Your task to perform on an android device: install app "Indeed Job Search" Image 0: 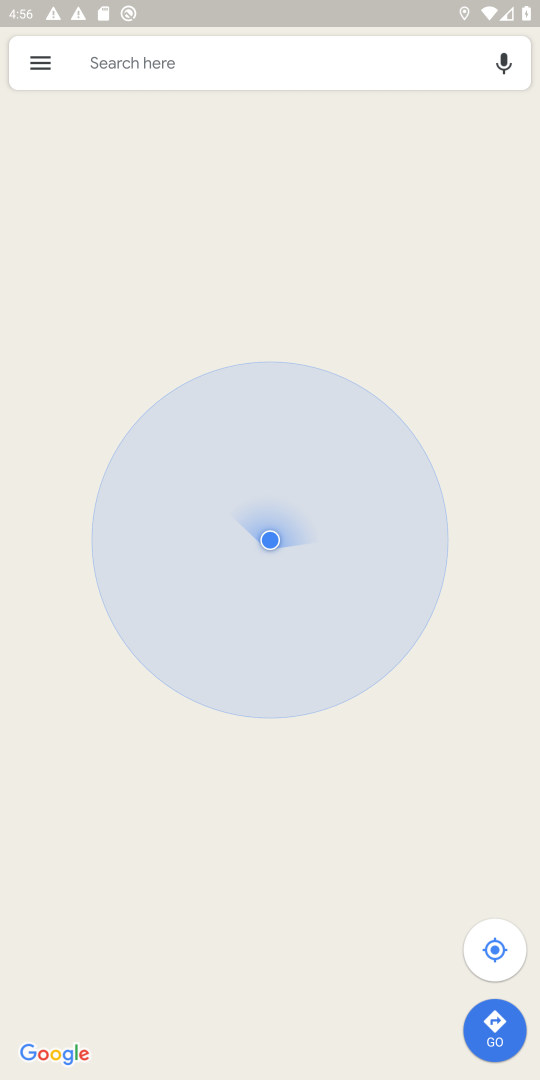
Step 0: press back button
Your task to perform on an android device: install app "Indeed Job Search" Image 1: 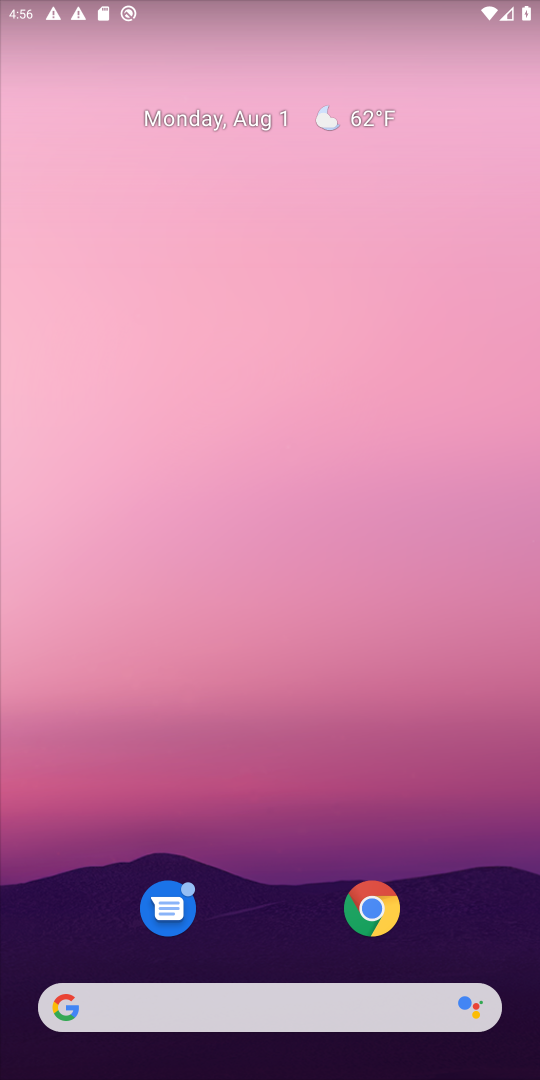
Step 1: click (218, 247)
Your task to perform on an android device: install app "Indeed Job Search" Image 2: 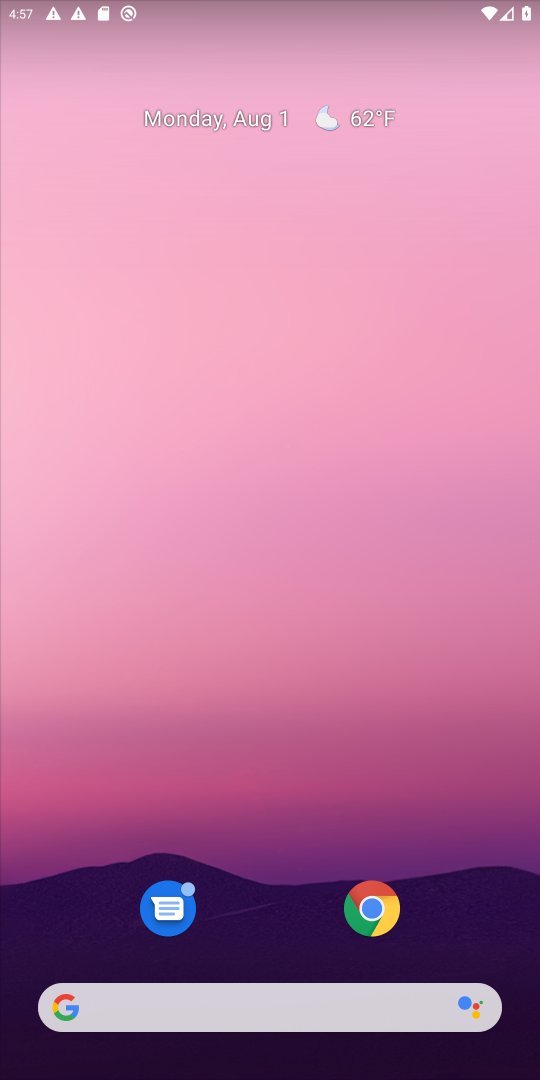
Step 2: drag from (247, 950) to (241, 239)
Your task to perform on an android device: install app "Indeed Job Search" Image 3: 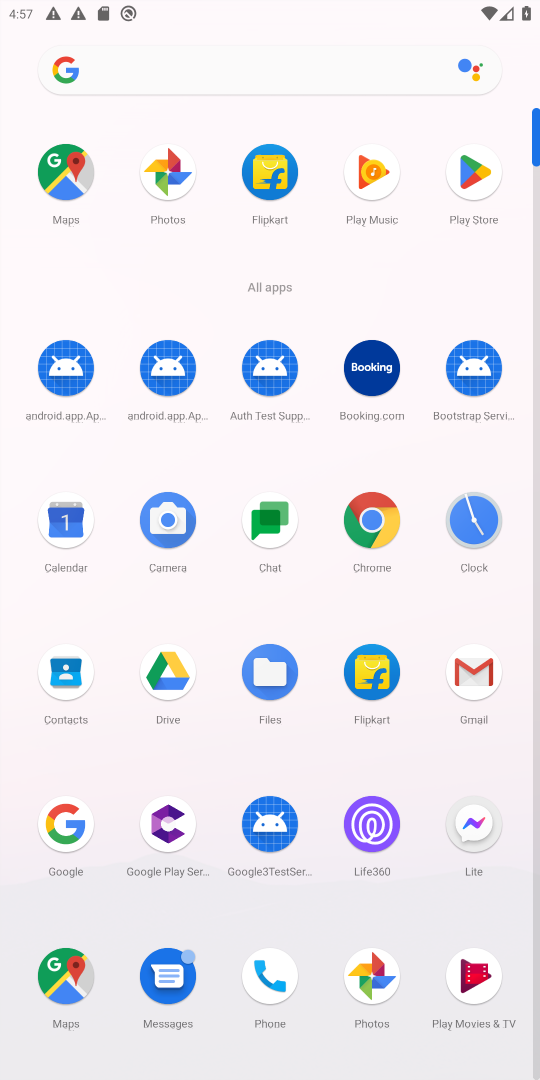
Step 3: click (475, 194)
Your task to perform on an android device: install app "Indeed Job Search" Image 4: 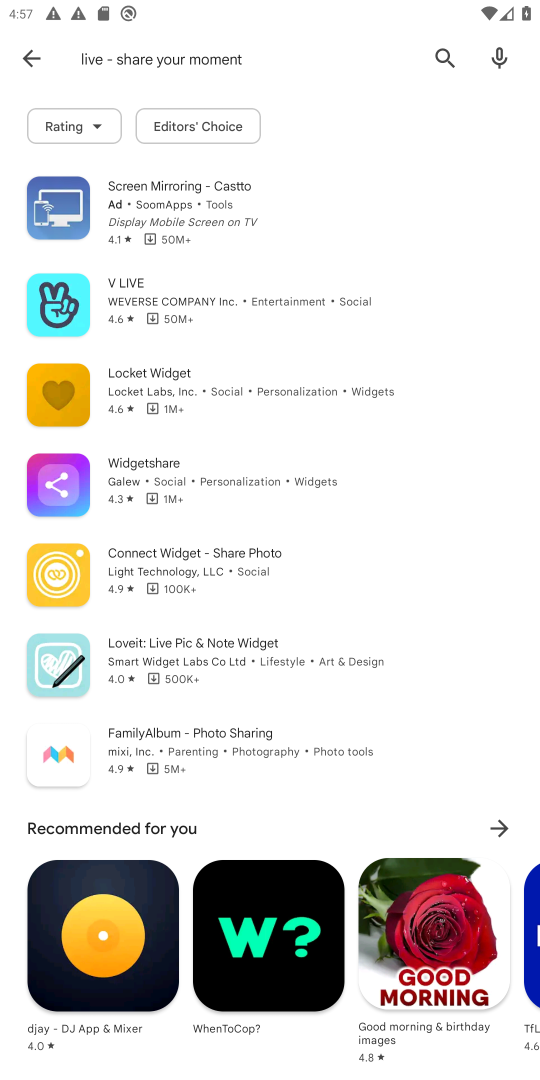
Step 4: click (35, 57)
Your task to perform on an android device: install app "Indeed Job Search" Image 5: 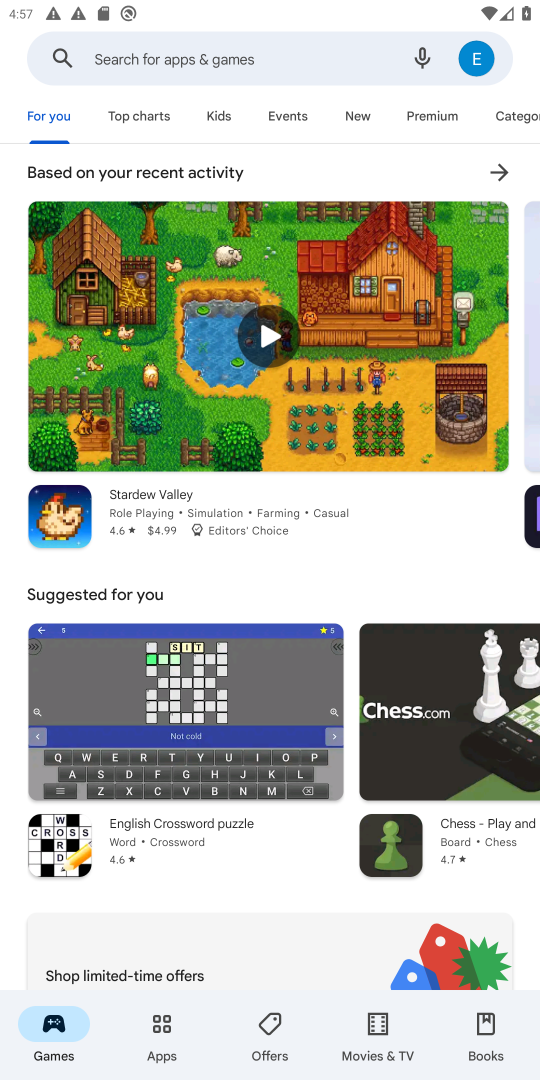
Step 5: click (185, 57)
Your task to perform on an android device: install app "Indeed Job Search" Image 6: 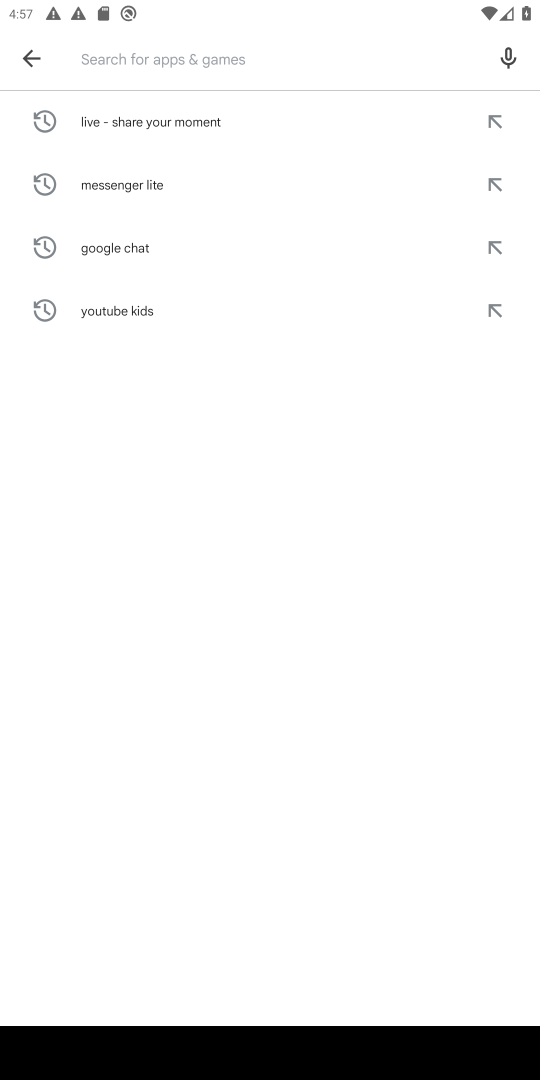
Step 6: type "Indeed Job Search"
Your task to perform on an android device: install app "Indeed Job Search" Image 7: 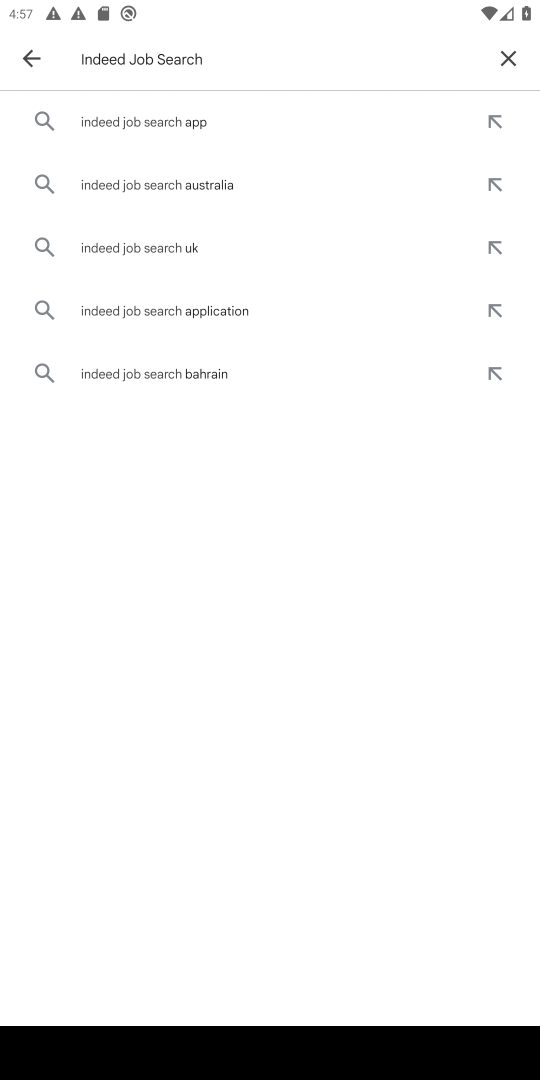
Step 7: click (193, 119)
Your task to perform on an android device: install app "Indeed Job Search" Image 8: 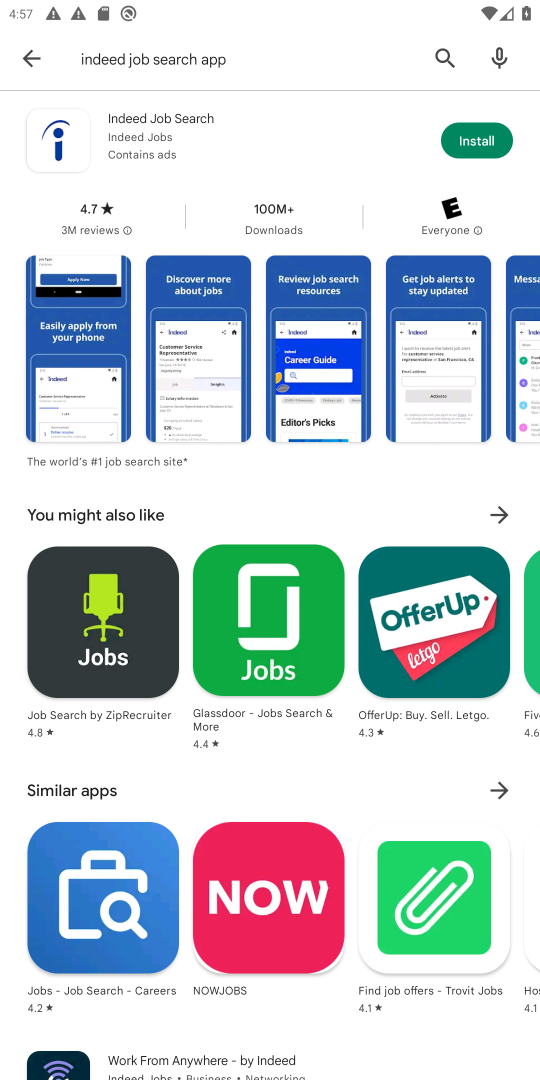
Step 8: click (461, 141)
Your task to perform on an android device: install app "Indeed Job Search" Image 9: 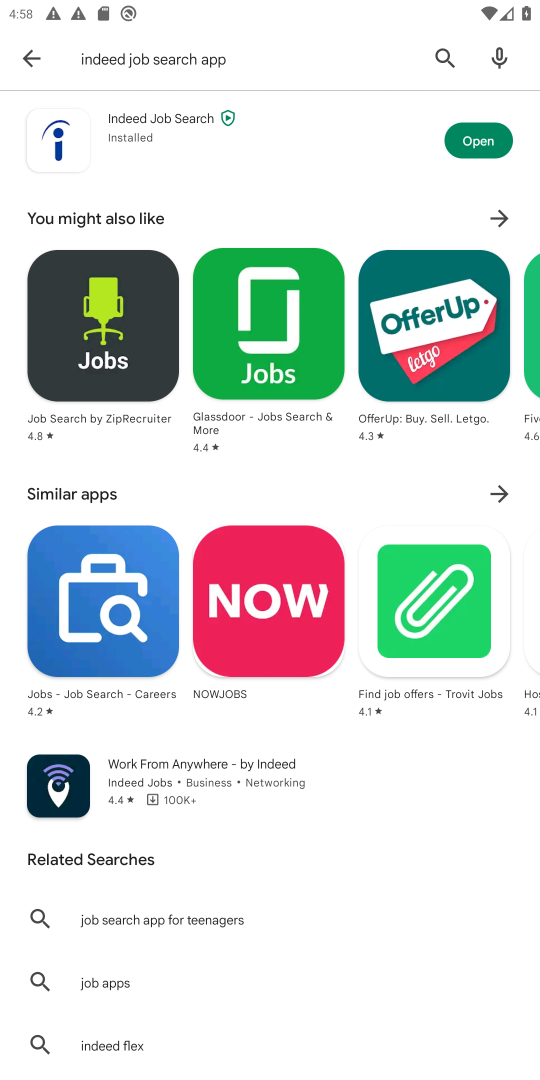
Step 9: click (461, 134)
Your task to perform on an android device: install app "Indeed Job Search" Image 10: 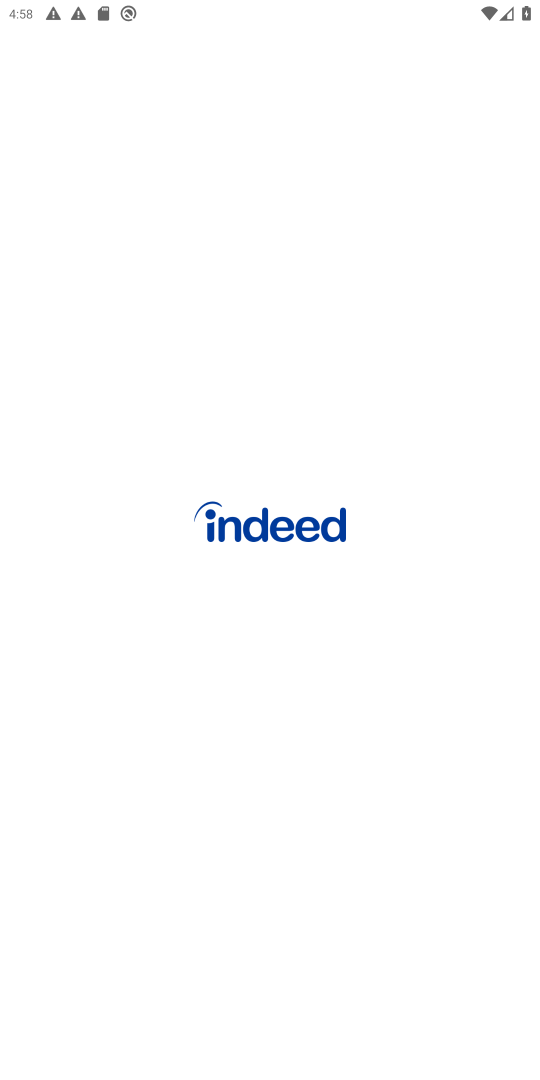
Step 10: task complete